Your task to perform on an android device: find photos in the google photos app Image 0: 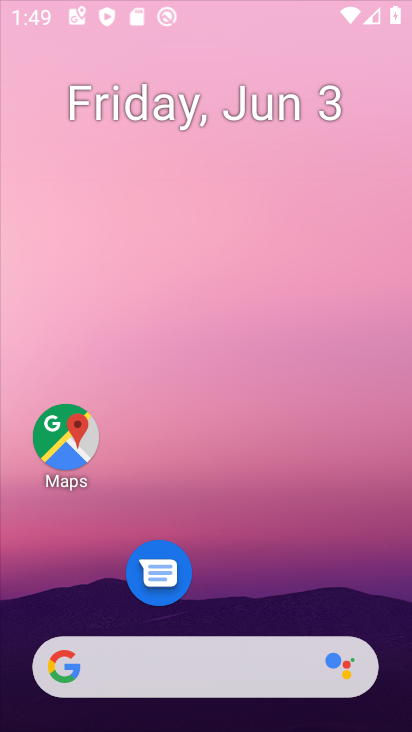
Step 0: drag from (248, 609) to (269, 144)
Your task to perform on an android device: find photos in the google photos app Image 1: 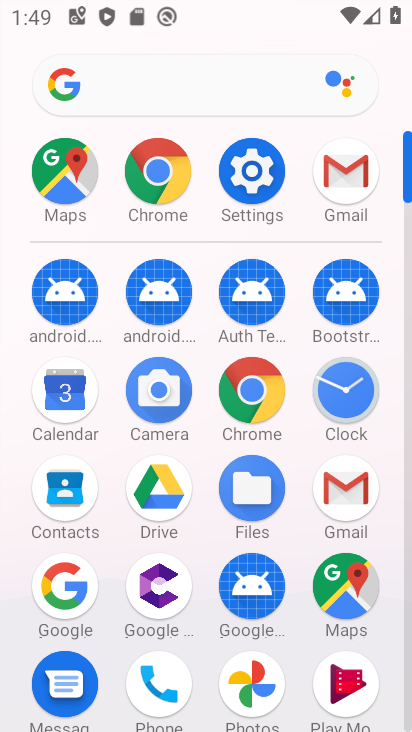
Step 1: click (238, 697)
Your task to perform on an android device: find photos in the google photos app Image 2: 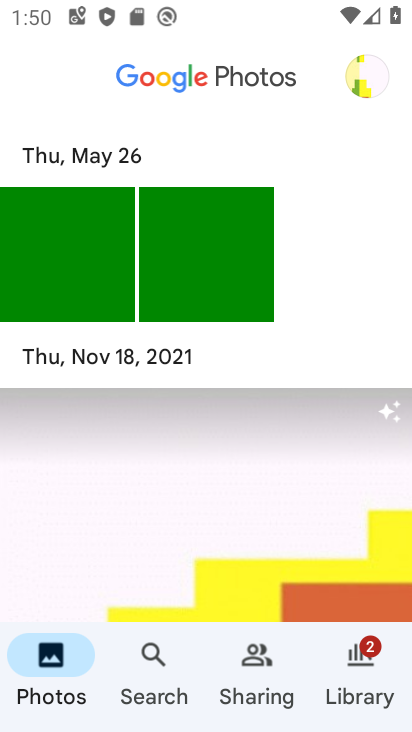
Step 2: task complete